Your task to perform on an android device: Search for Mexican restaurants on Maps Image 0: 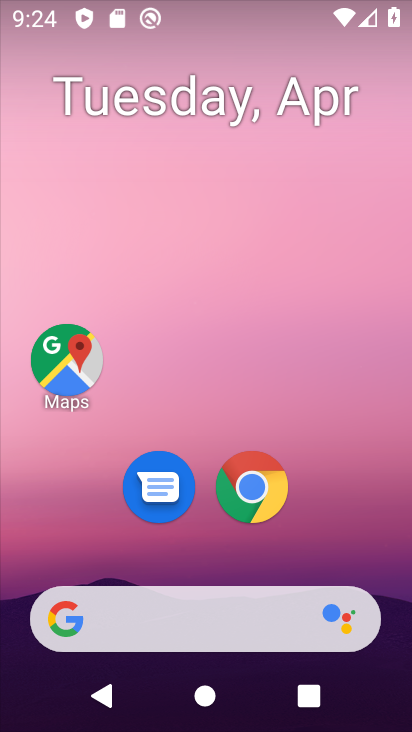
Step 0: click (71, 361)
Your task to perform on an android device: Search for Mexican restaurants on Maps Image 1: 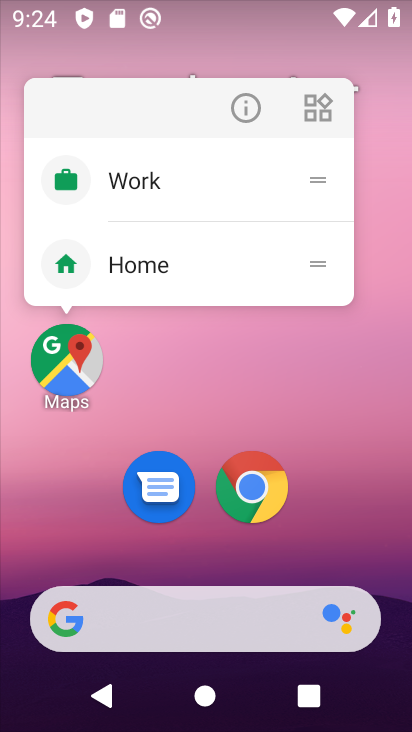
Step 1: click (73, 372)
Your task to perform on an android device: Search for Mexican restaurants on Maps Image 2: 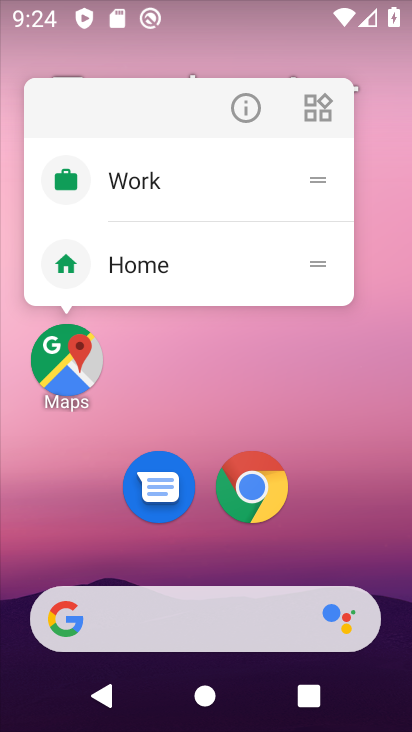
Step 2: click (73, 388)
Your task to perform on an android device: Search for Mexican restaurants on Maps Image 3: 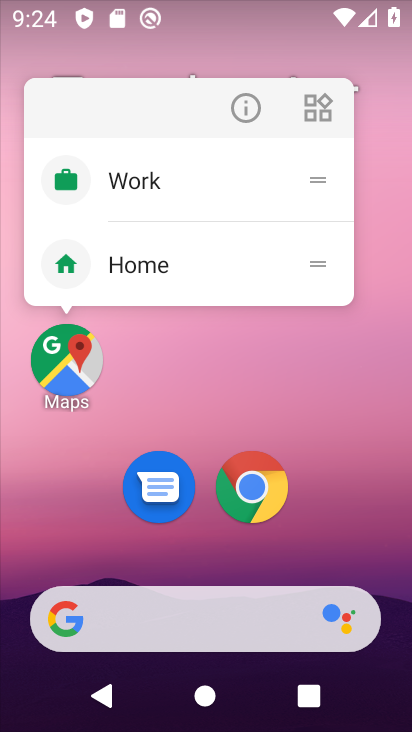
Step 3: click (61, 411)
Your task to perform on an android device: Search for Mexican restaurants on Maps Image 4: 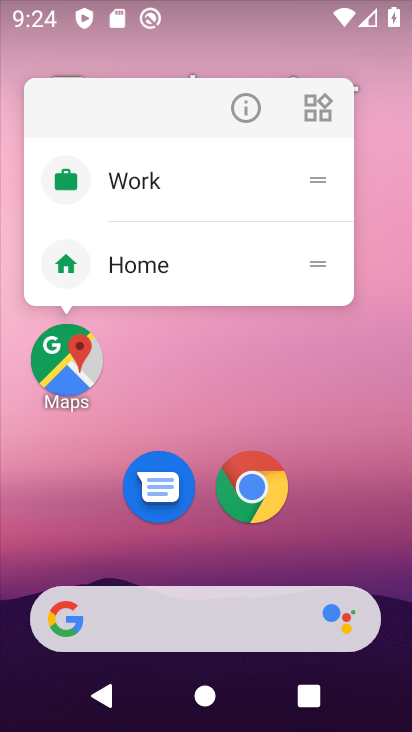
Step 4: click (77, 367)
Your task to perform on an android device: Search for Mexican restaurants on Maps Image 5: 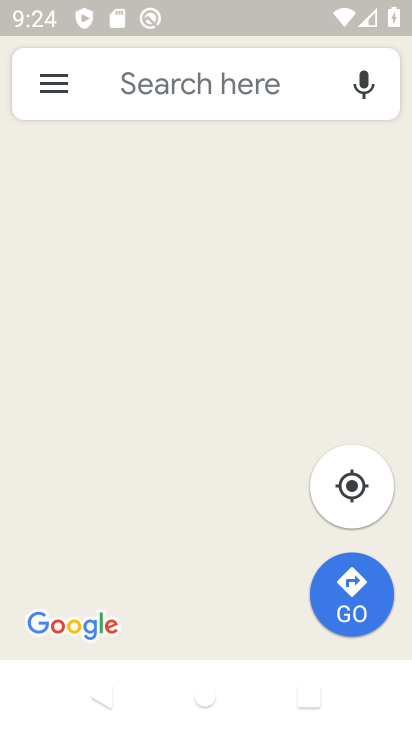
Step 5: click (118, 85)
Your task to perform on an android device: Search for Mexican restaurants on Maps Image 6: 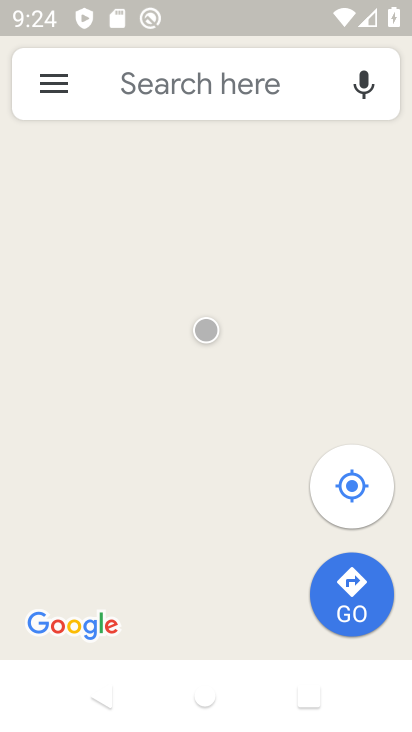
Step 6: click (154, 87)
Your task to perform on an android device: Search for Mexican restaurants on Maps Image 7: 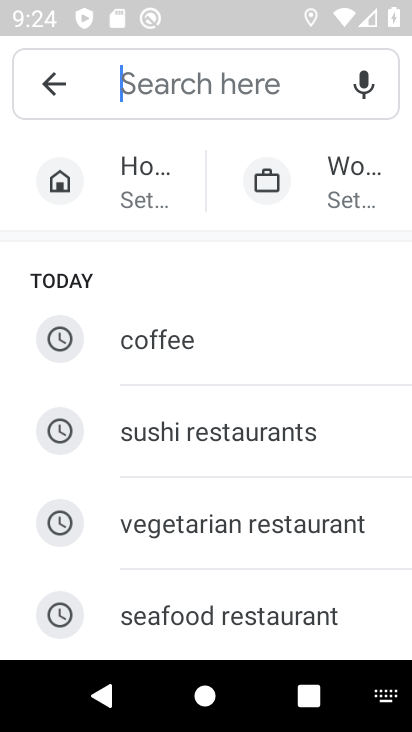
Step 7: type "mexican restaurants"
Your task to perform on an android device: Search for Mexican restaurants on Maps Image 8: 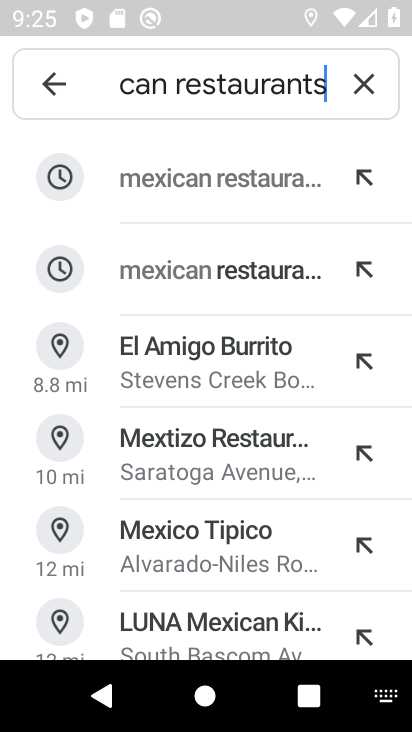
Step 8: task complete